Your task to perform on an android device: delete browsing data in the chrome app Image 0: 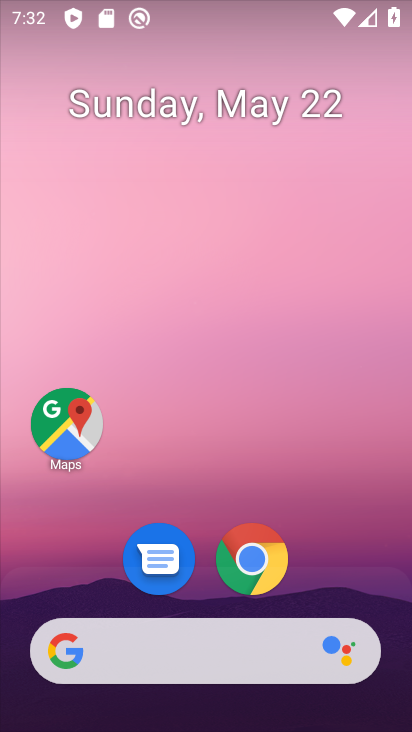
Step 0: click (269, 556)
Your task to perform on an android device: delete browsing data in the chrome app Image 1: 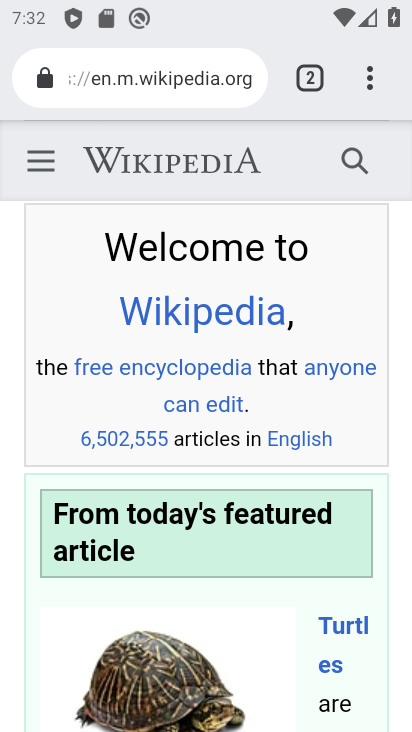
Step 1: click (366, 75)
Your task to perform on an android device: delete browsing data in the chrome app Image 2: 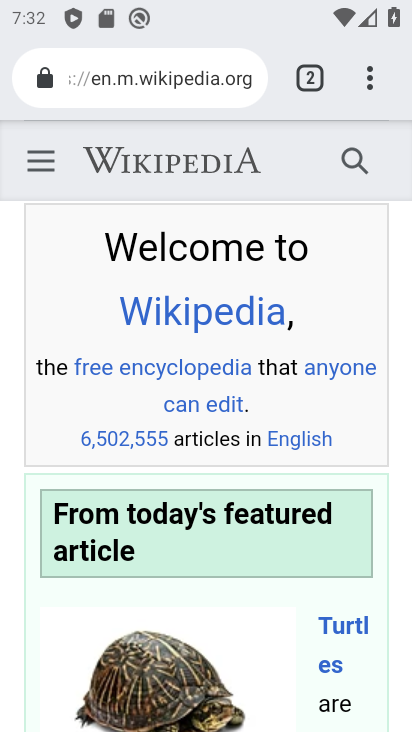
Step 2: click (366, 75)
Your task to perform on an android device: delete browsing data in the chrome app Image 3: 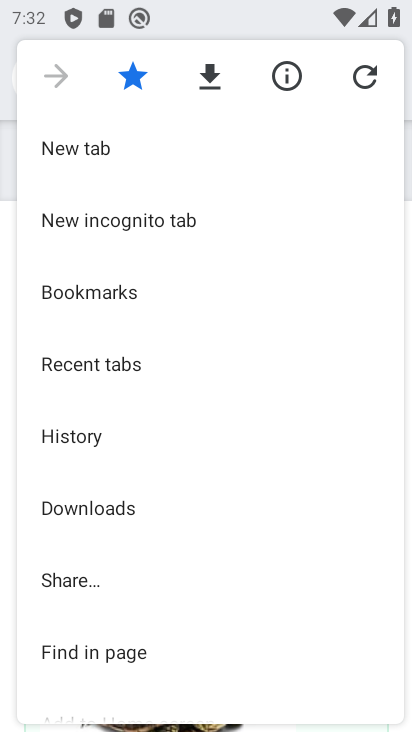
Step 3: click (102, 433)
Your task to perform on an android device: delete browsing data in the chrome app Image 4: 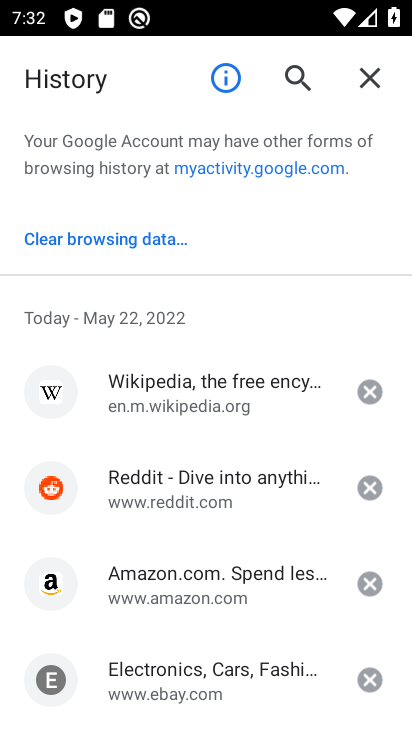
Step 4: click (108, 235)
Your task to perform on an android device: delete browsing data in the chrome app Image 5: 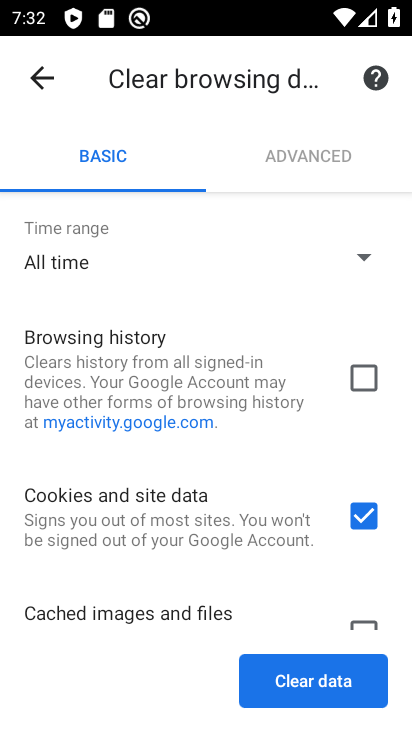
Step 5: click (368, 372)
Your task to perform on an android device: delete browsing data in the chrome app Image 6: 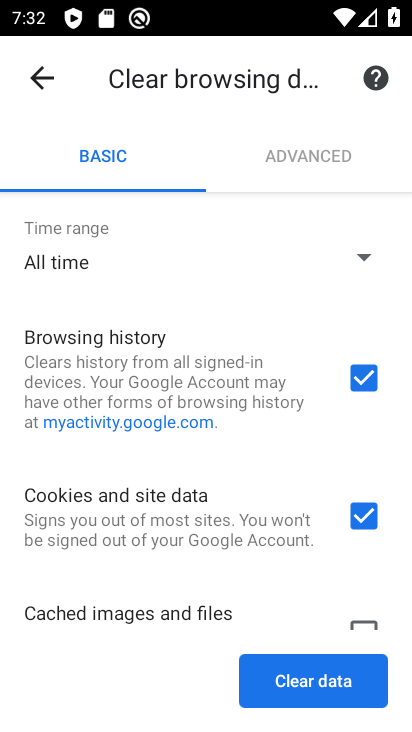
Step 6: click (359, 614)
Your task to perform on an android device: delete browsing data in the chrome app Image 7: 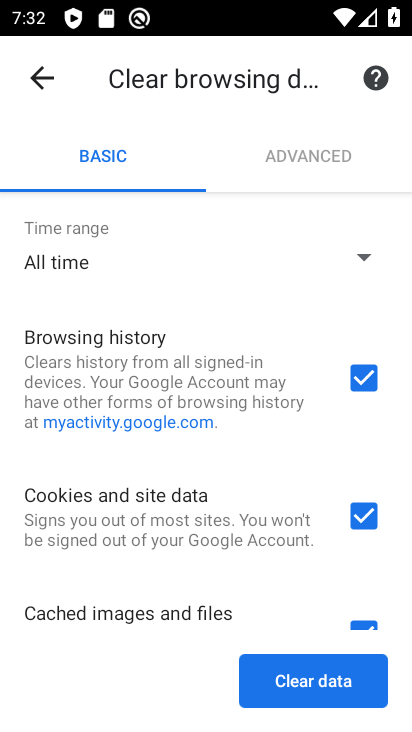
Step 7: click (332, 679)
Your task to perform on an android device: delete browsing data in the chrome app Image 8: 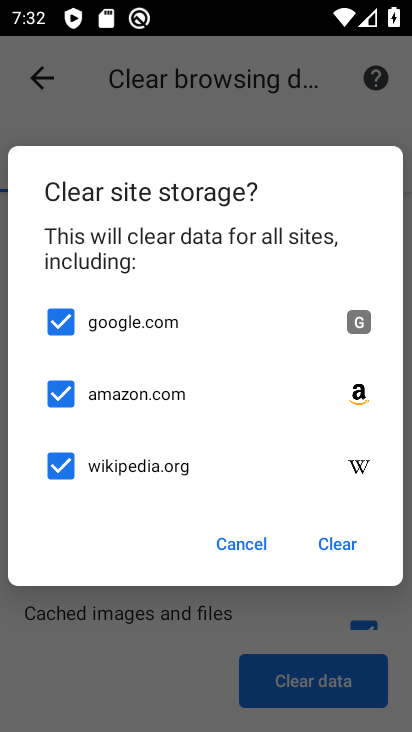
Step 8: click (340, 534)
Your task to perform on an android device: delete browsing data in the chrome app Image 9: 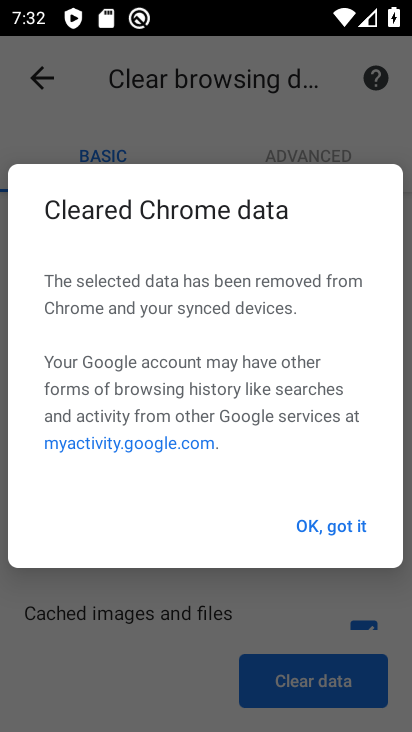
Step 9: click (347, 517)
Your task to perform on an android device: delete browsing data in the chrome app Image 10: 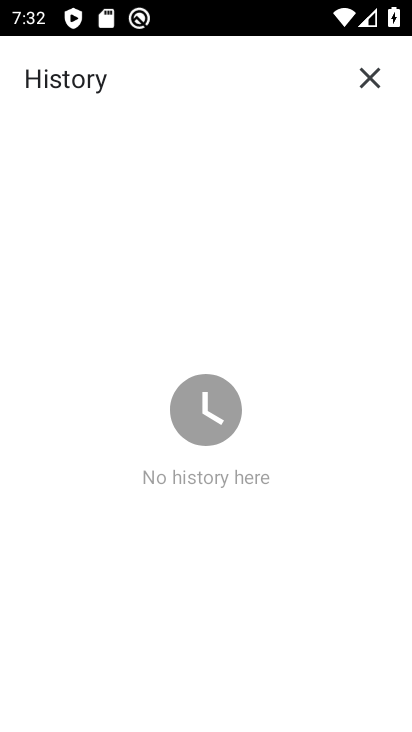
Step 10: task complete